Your task to perform on an android device: Go to CNN.com Image 0: 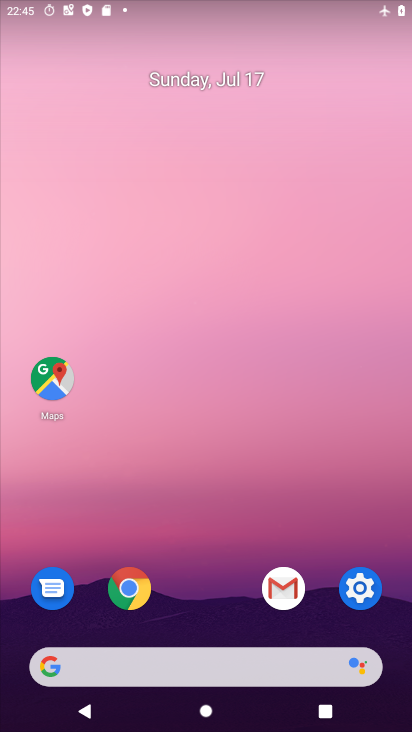
Step 0: press home button
Your task to perform on an android device: Go to CNN.com Image 1: 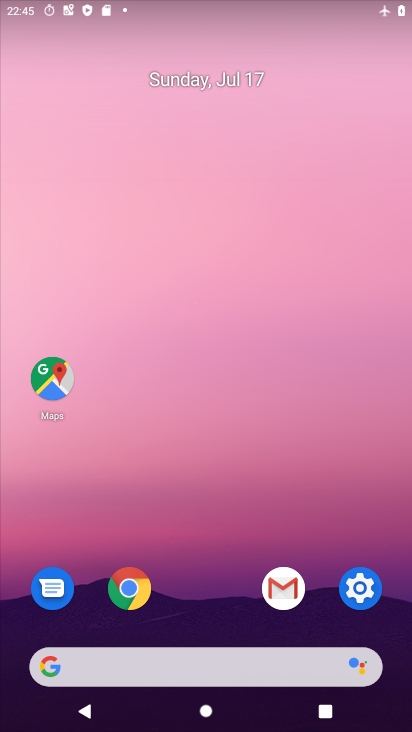
Step 1: click (131, 595)
Your task to perform on an android device: Go to CNN.com Image 2: 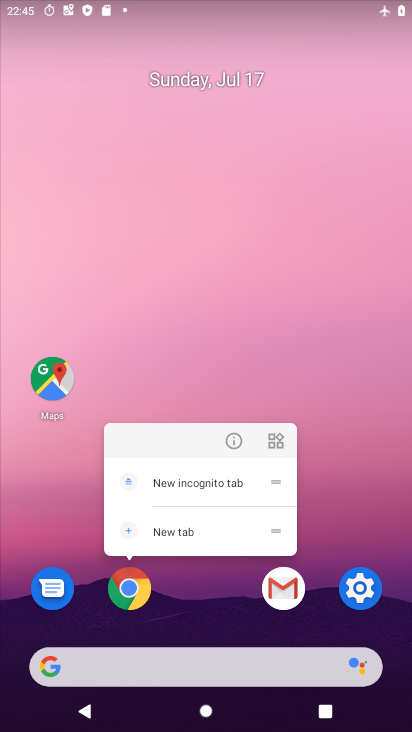
Step 2: click (146, 591)
Your task to perform on an android device: Go to CNN.com Image 3: 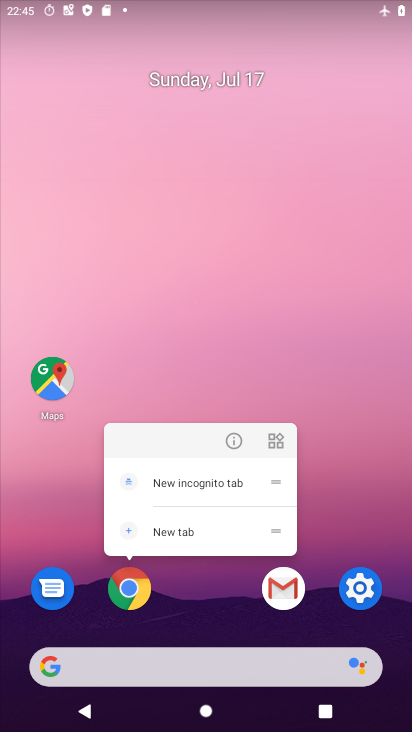
Step 3: click (139, 594)
Your task to perform on an android device: Go to CNN.com Image 4: 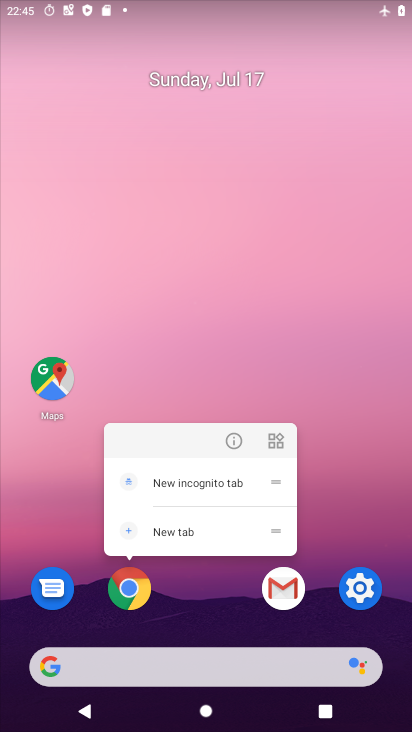
Step 4: click (141, 577)
Your task to perform on an android device: Go to CNN.com Image 5: 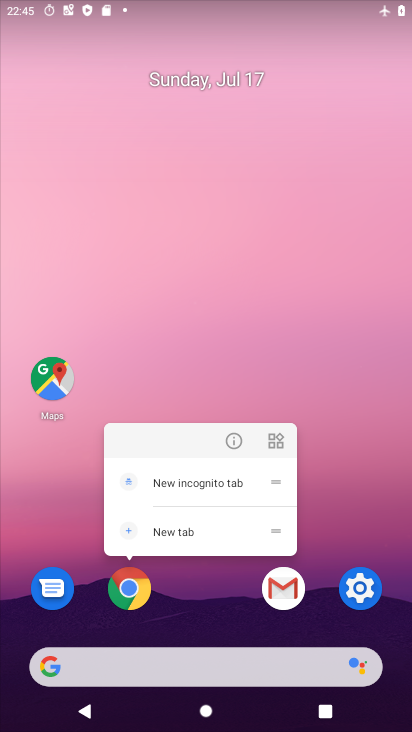
Step 5: click (148, 608)
Your task to perform on an android device: Go to CNN.com Image 6: 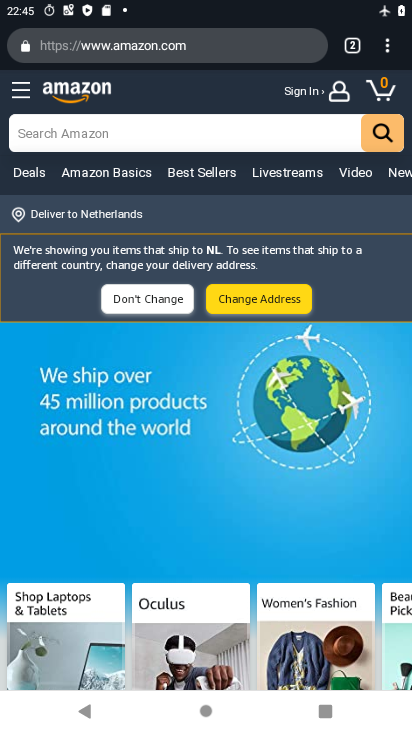
Step 6: click (144, 53)
Your task to perform on an android device: Go to CNN.com Image 7: 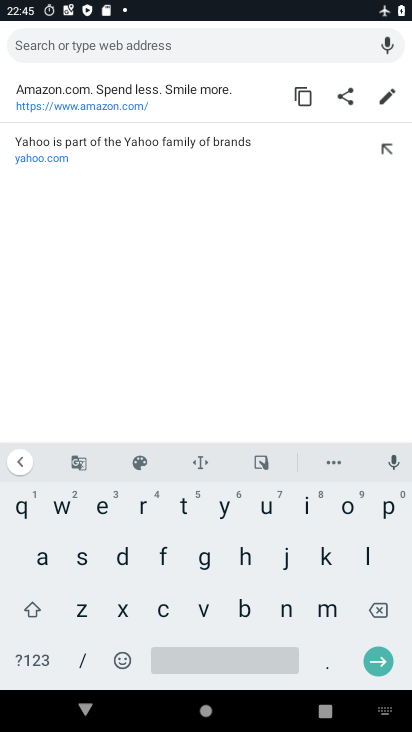
Step 7: click (164, 614)
Your task to perform on an android device: Go to CNN.com Image 8: 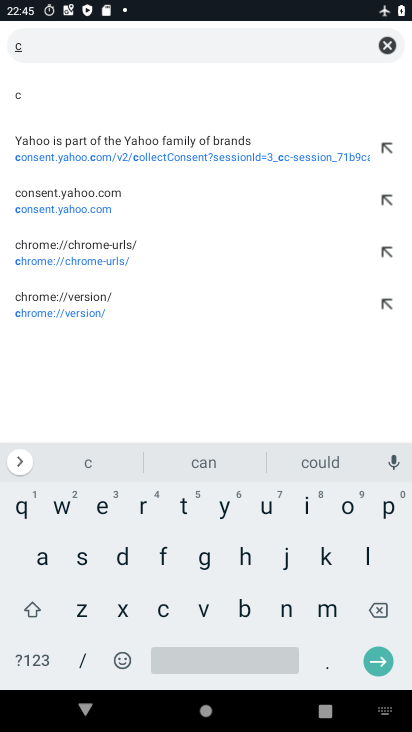
Step 8: click (286, 608)
Your task to perform on an android device: Go to CNN.com Image 9: 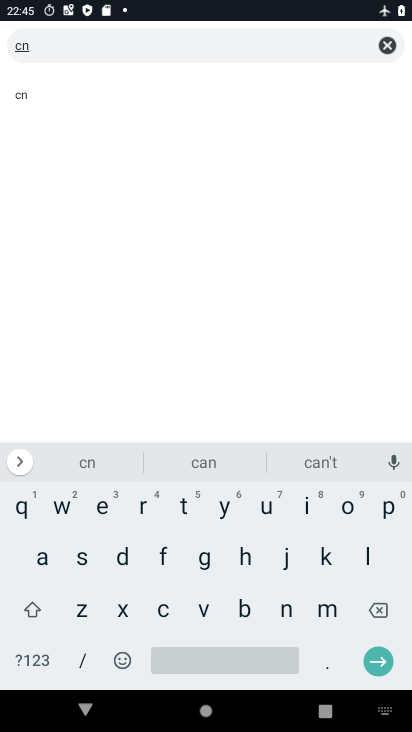
Step 9: click (282, 604)
Your task to perform on an android device: Go to CNN.com Image 10: 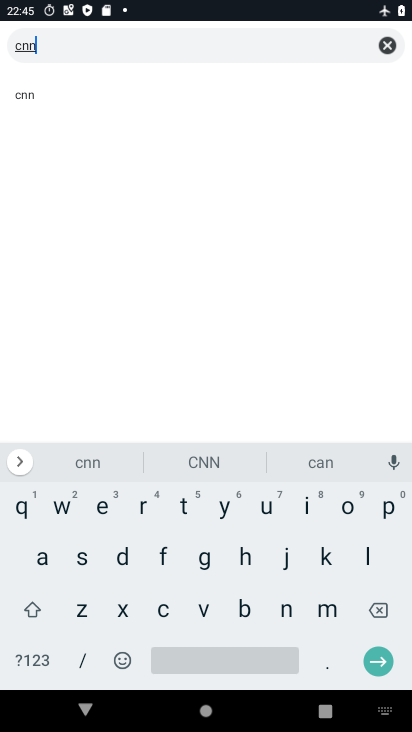
Step 10: click (384, 659)
Your task to perform on an android device: Go to CNN.com Image 11: 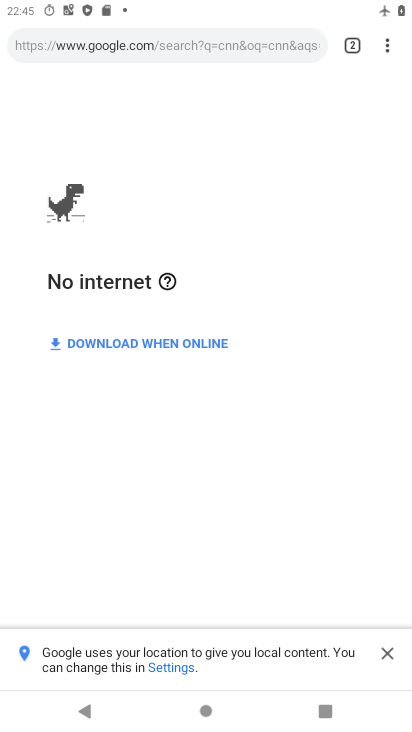
Step 11: press home button
Your task to perform on an android device: Go to CNN.com Image 12: 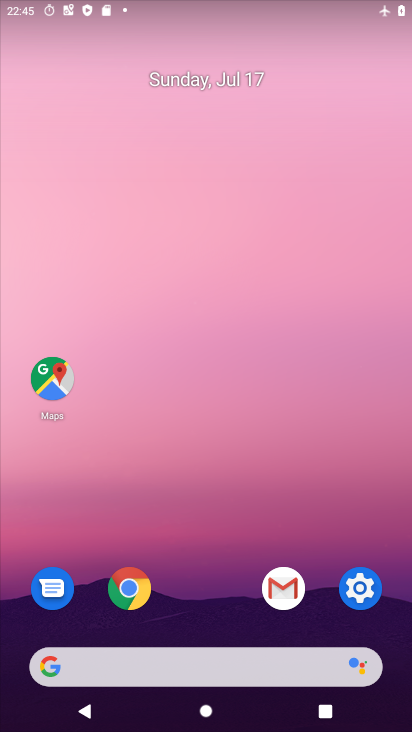
Step 12: click (363, 596)
Your task to perform on an android device: Go to CNN.com Image 13: 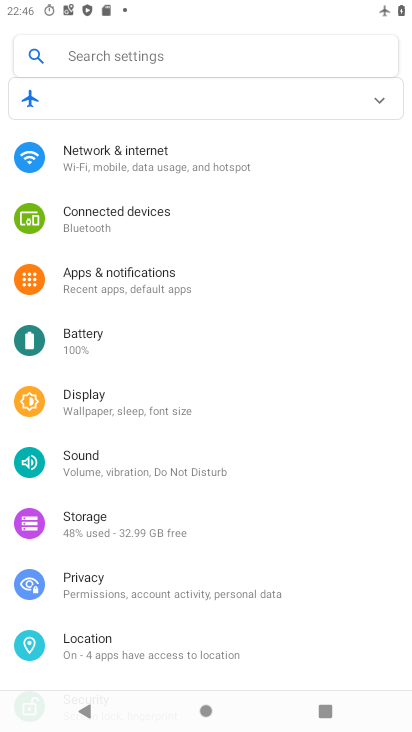
Step 13: click (381, 100)
Your task to perform on an android device: Go to CNN.com Image 14: 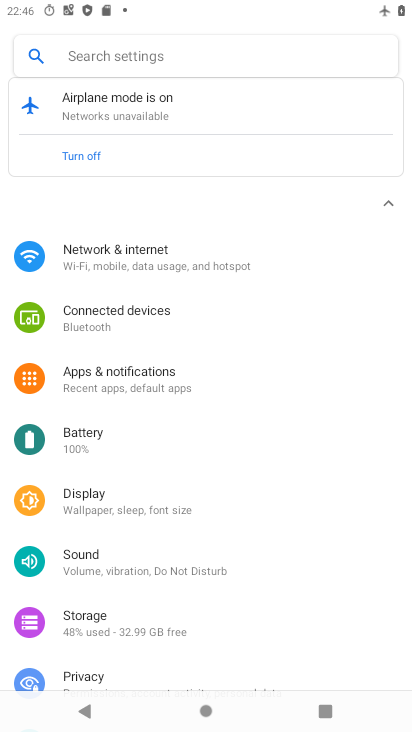
Step 14: click (114, 146)
Your task to perform on an android device: Go to CNN.com Image 15: 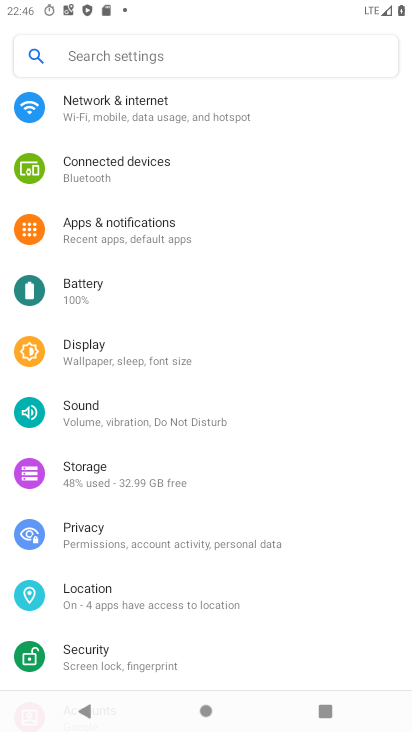
Step 15: press home button
Your task to perform on an android device: Go to CNN.com Image 16: 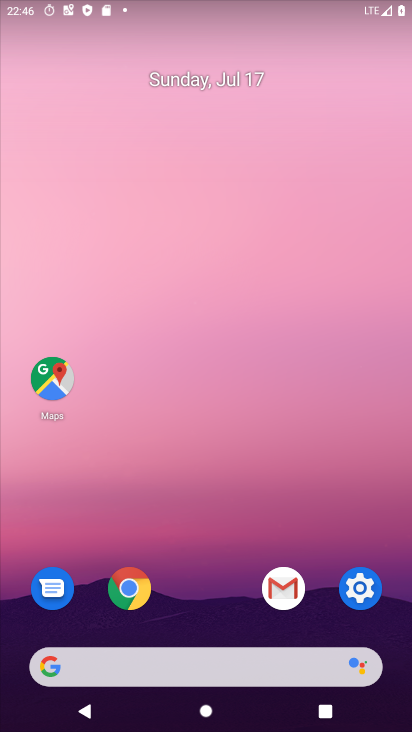
Step 16: click (137, 584)
Your task to perform on an android device: Go to CNN.com Image 17: 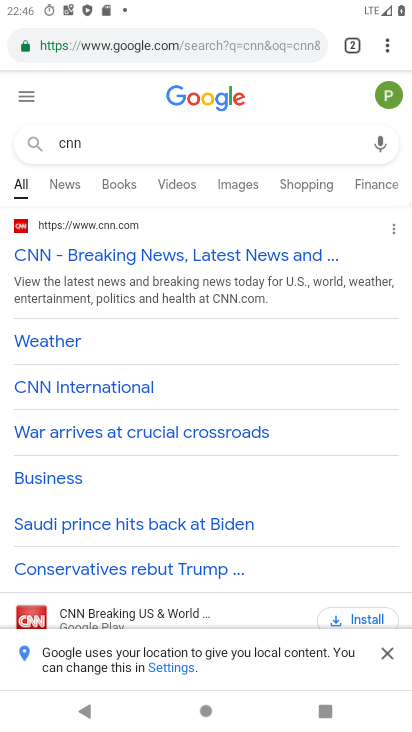
Step 17: click (75, 251)
Your task to perform on an android device: Go to CNN.com Image 18: 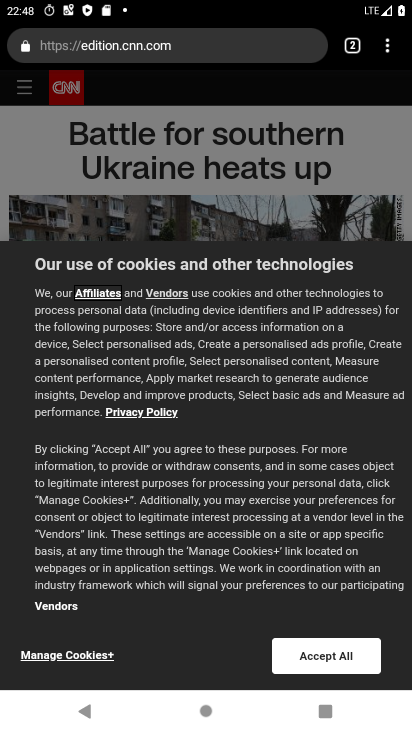
Step 18: task complete